Your task to perform on an android device: Do I have any events today? Image 0: 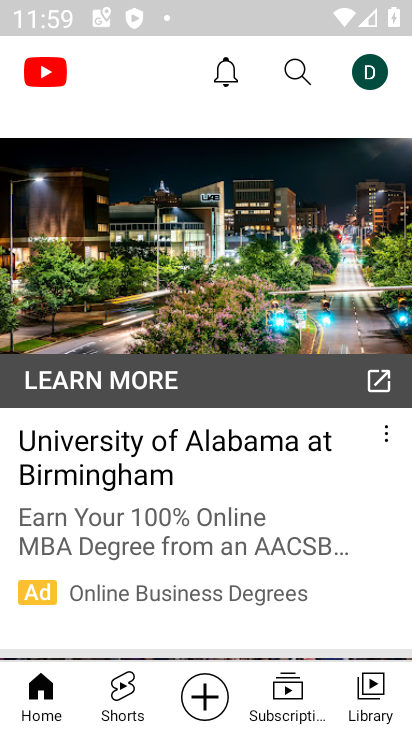
Step 0: press home button
Your task to perform on an android device: Do I have any events today? Image 1: 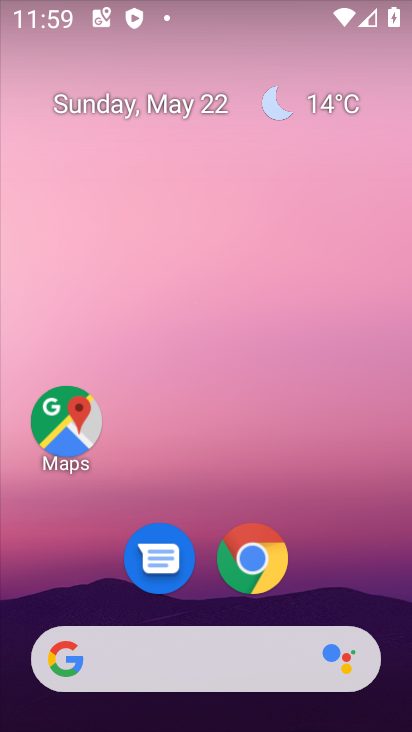
Step 1: drag from (334, 601) to (265, 3)
Your task to perform on an android device: Do I have any events today? Image 2: 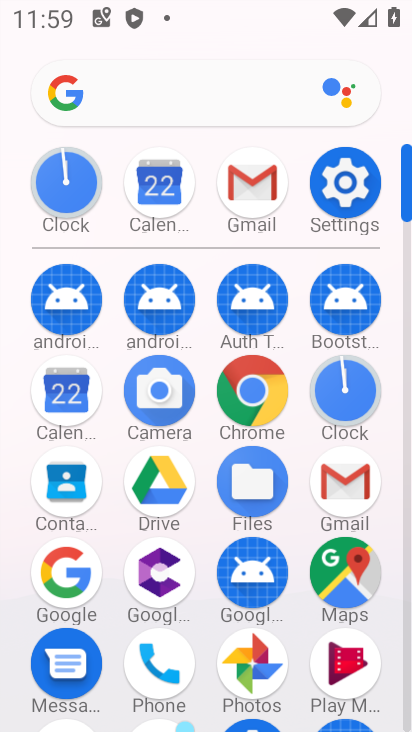
Step 2: click (154, 188)
Your task to perform on an android device: Do I have any events today? Image 3: 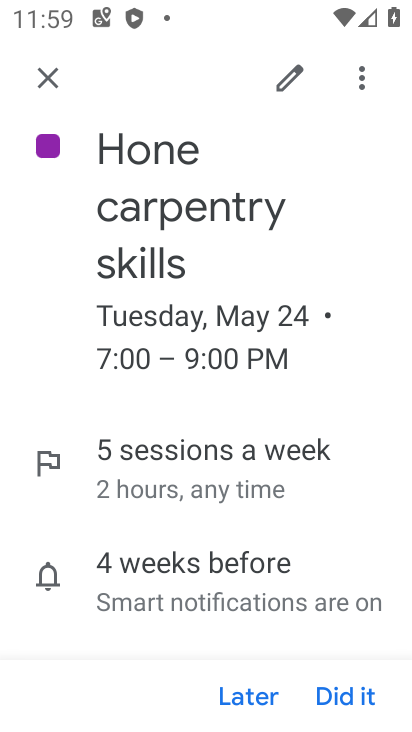
Step 3: click (43, 79)
Your task to perform on an android device: Do I have any events today? Image 4: 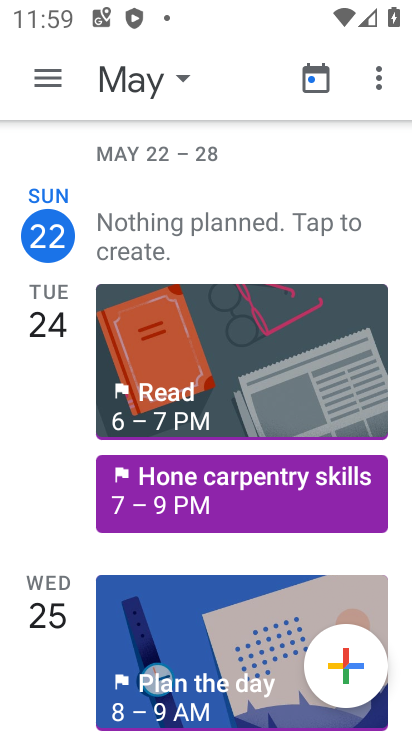
Step 4: click (129, 225)
Your task to perform on an android device: Do I have any events today? Image 5: 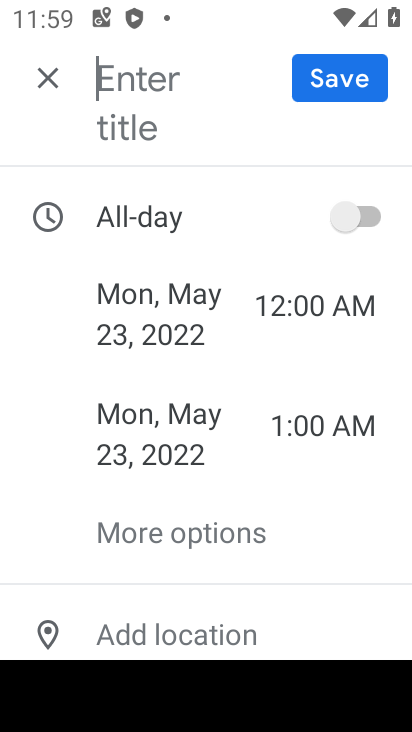
Step 5: task complete